Your task to perform on an android device: open chrome and create a bookmark for the current page Image 0: 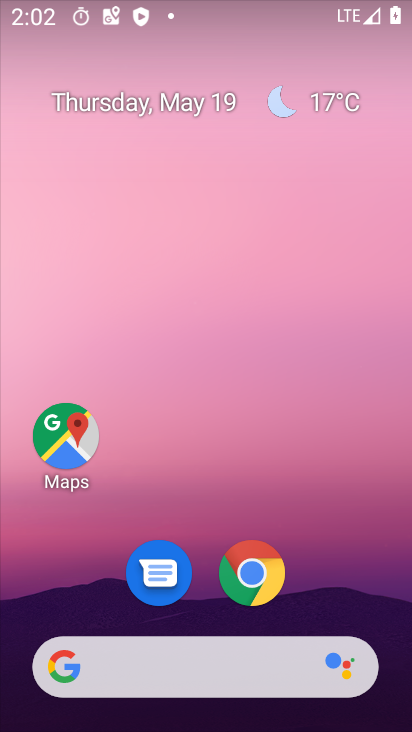
Step 0: click (261, 569)
Your task to perform on an android device: open chrome and create a bookmark for the current page Image 1: 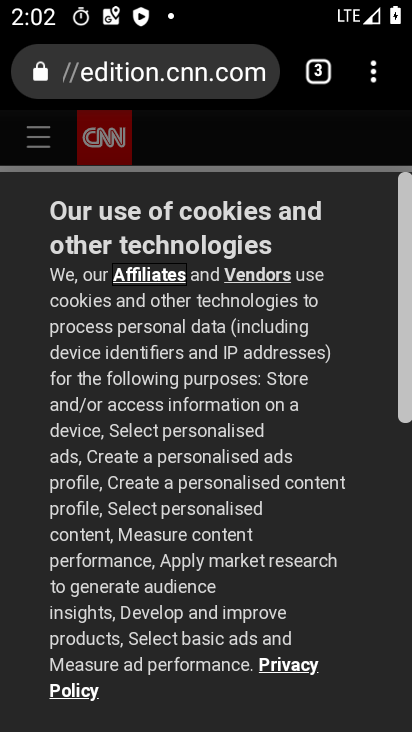
Step 1: task complete